Your task to perform on an android device: open sync settings in chrome Image 0: 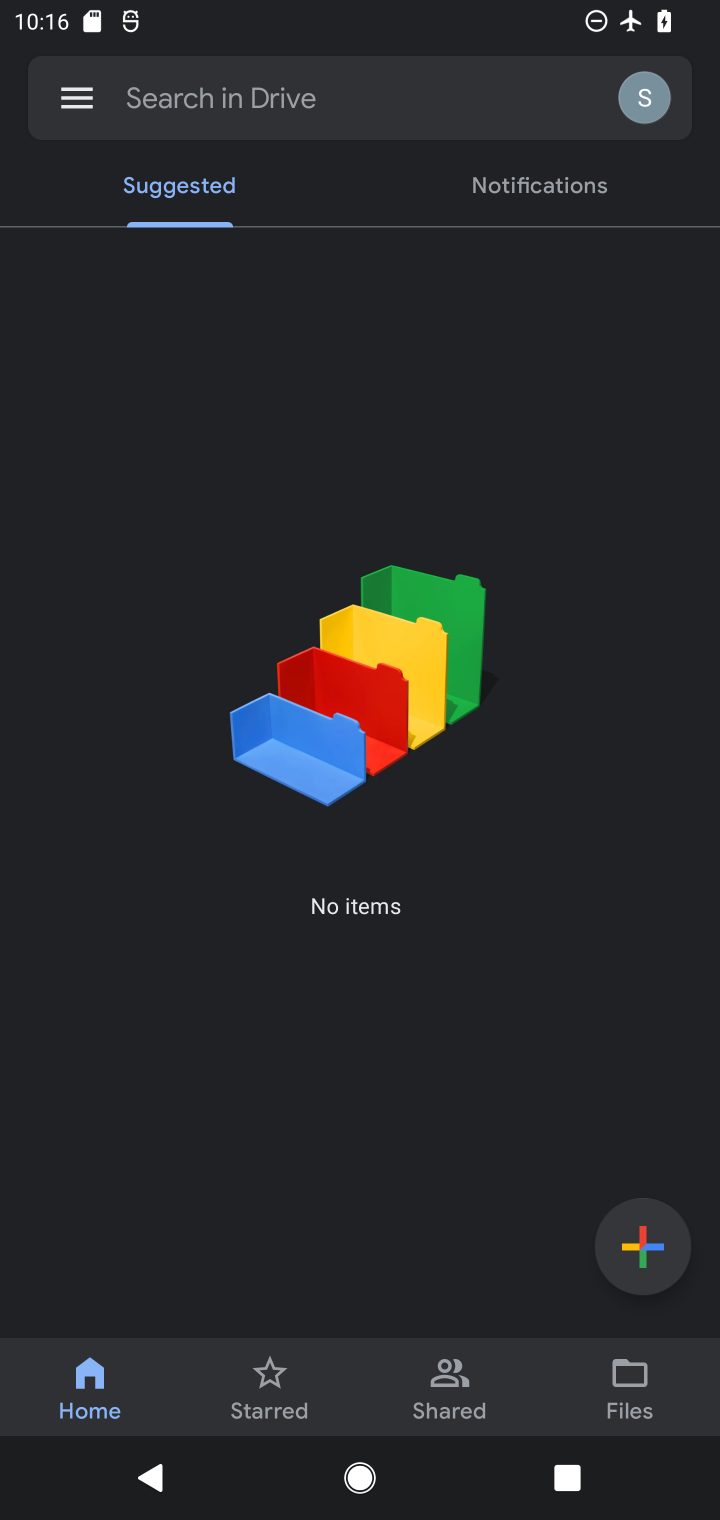
Step 0: task complete